Your task to perform on an android device: Go to Android settings Image 0: 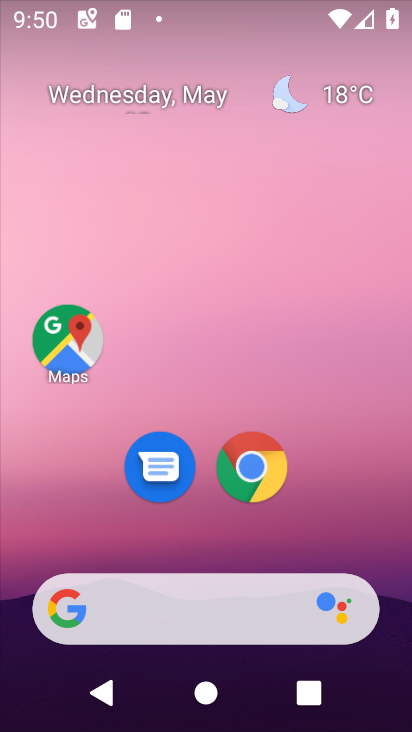
Step 0: drag from (321, 518) to (354, 54)
Your task to perform on an android device: Go to Android settings Image 1: 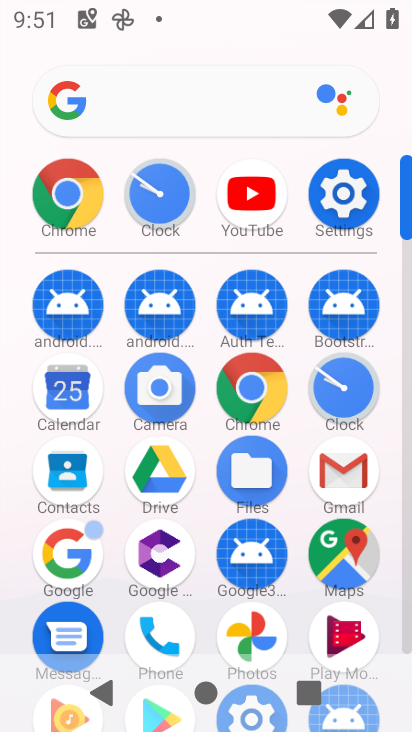
Step 1: drag from (295, 487) to (298, 155)
Your task to perform on an android device: Go to Android settings Image 2: 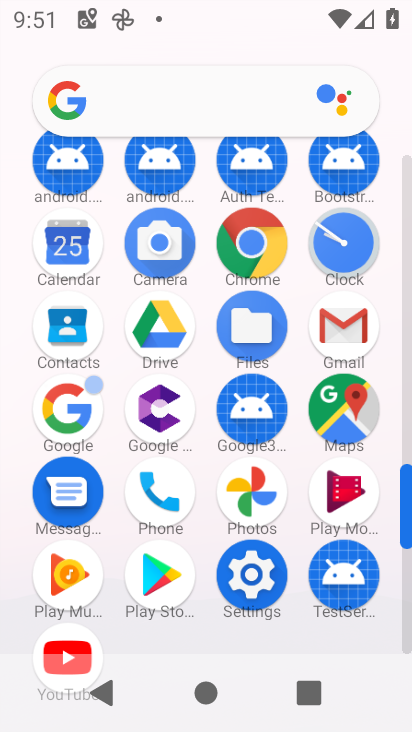
Step 2: click (270, 580)
Your task to perform on an android device: Go to Android settings Image 3: 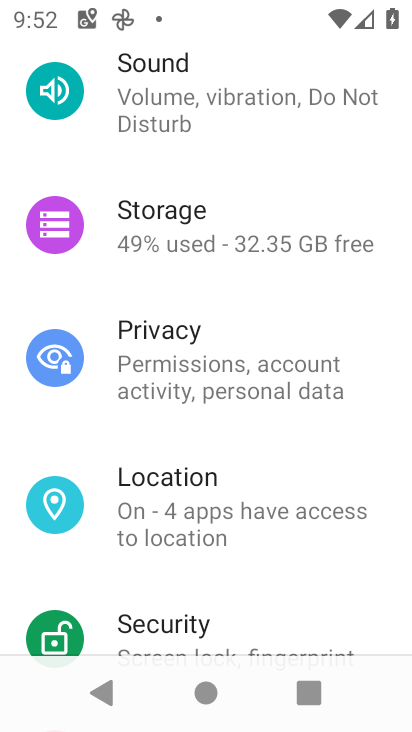
Step 3: task complete